Your task to perform on an android device: turn smart compose on in the gmail app Image 0: 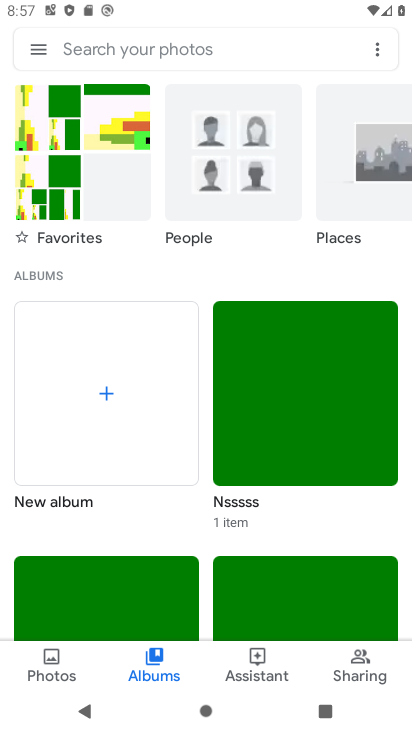
Step 0: press home button
Your task to perform on an android device: turn smart compose on in the gmail app Image 1: 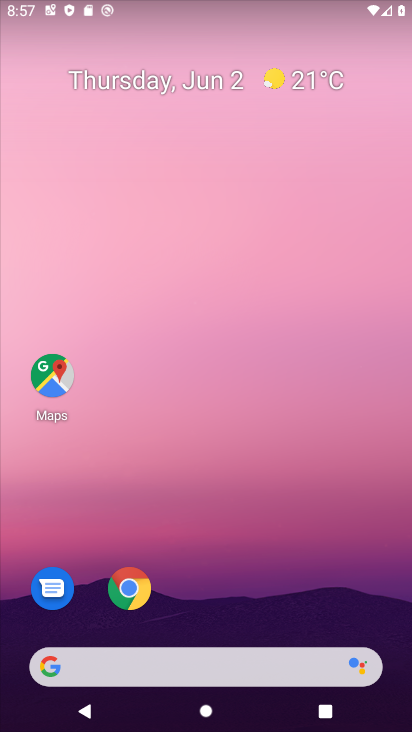
Step 1: drag from (208, 662) to (175, 219)
Your task to perform on an android device: turn smart compose on in the gmail app Image 2: 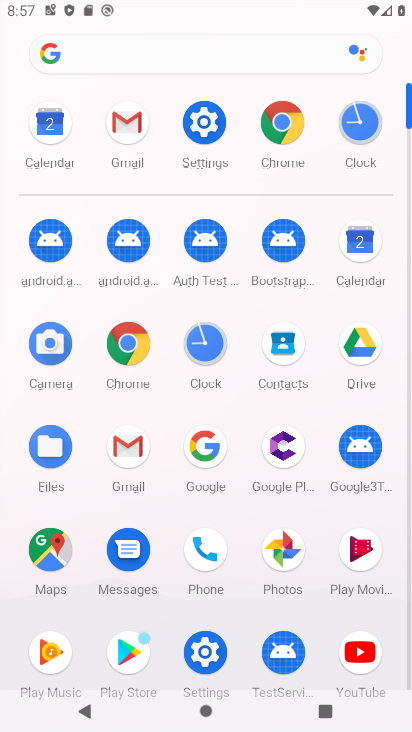
Step 2: click (132, 464)
Your task to perform on an android device: turn smart compose on in the gmail app Image 3: 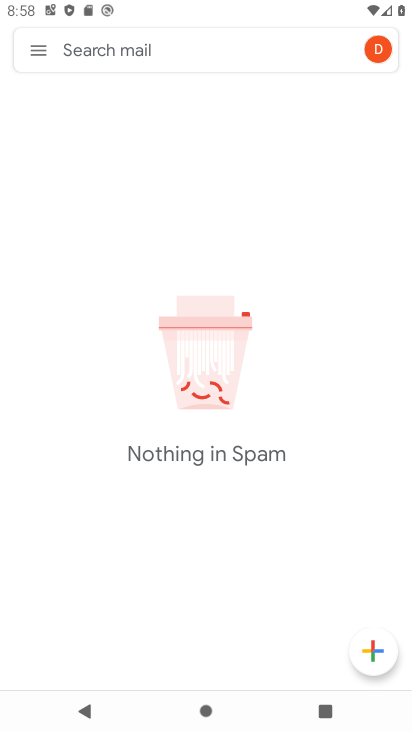
Step 3: click (25, 46)
Your task to perform on an android device: turn smart compose on in the gmail app Image 4: 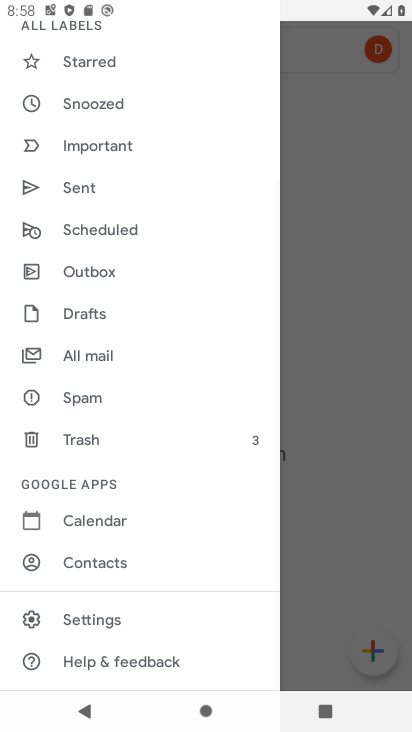
Step 4: click (122, 626)
Your task to perform on an android device: turn smart compose on in the gmail app Image 5: 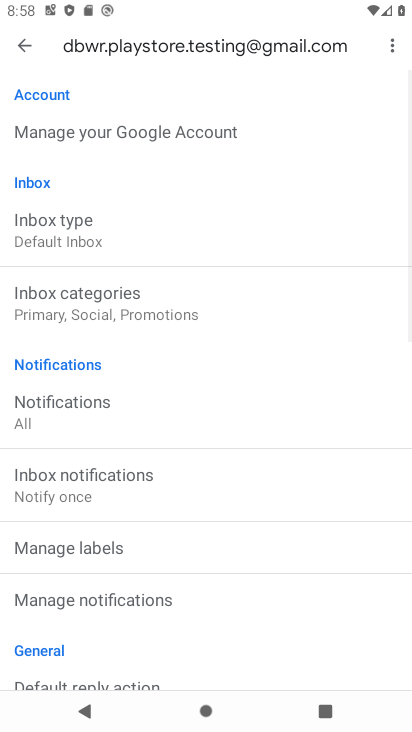
Step 5: task complete